Your task to perform on an android device: turn on the 24-hour format for clock Image 0: 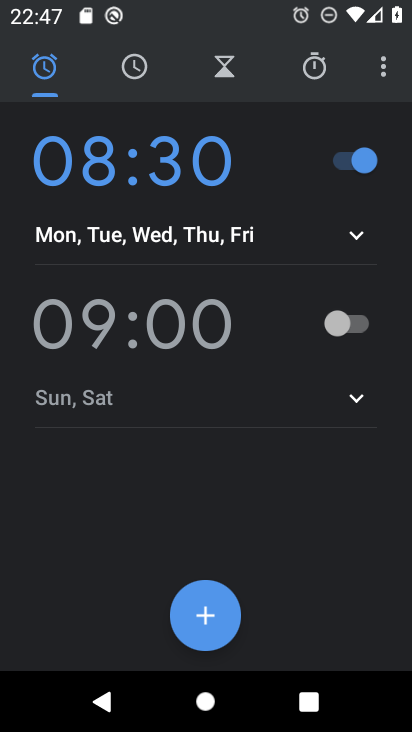
Step 0: press home button
Your task to perform on an android device: turn on the 24-hour format for clock Image 1: 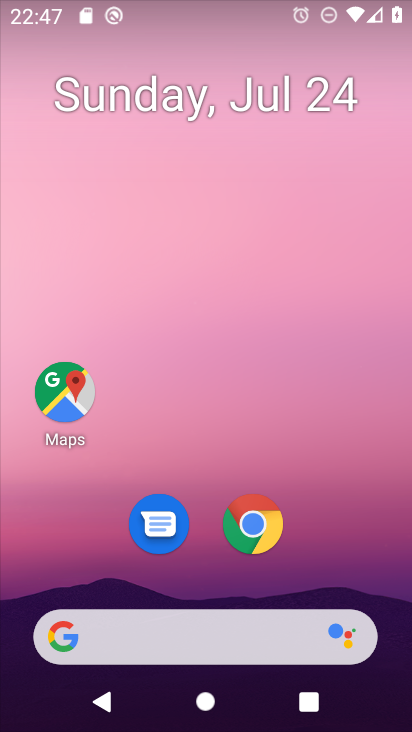
Step 1: drag from (157, 628) to (275, 156)
Your task to perform on an android device: turn on the 24-hour format for clock Image 2: 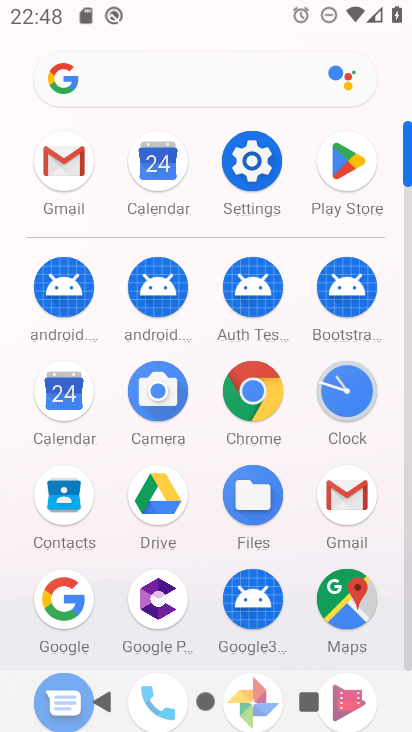
Step 2: click (343, 400)
Your task to perform on an android device: turn on the 24-hour format for clock Image 3: 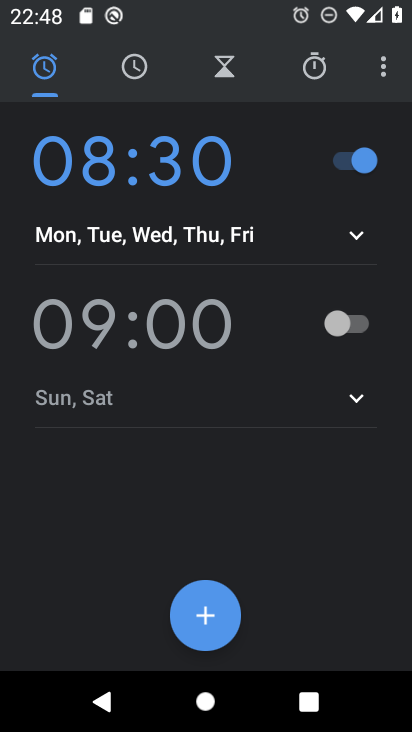
Step 3: click (386, 75)
Your task to perform on an android device: turn on the 24-hour format for clock Image 4: 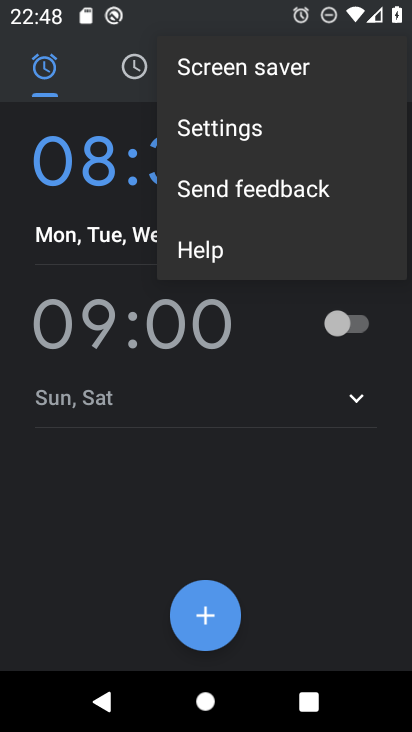
Step 4: click (240, 127)
Your task to perform on an android device: turn on the 24-hour format for clock Image 5: 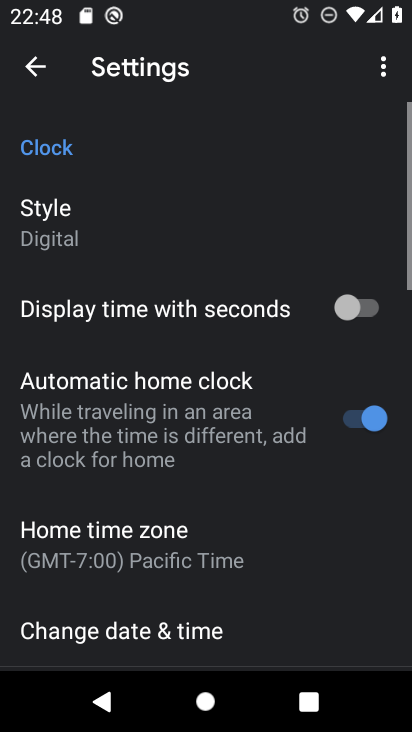
Step 5: drag from (249, 556) to (331, 100)
Your task to perform on an android device: turn on the 24-hour format for clock Image 6: 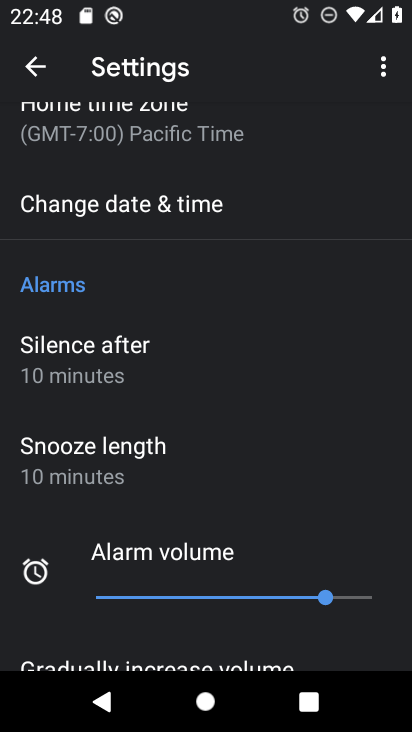
Step 6: click (173, 219)
Your task to perform on an android device: turn on the 24-hour format for clock Image 7: 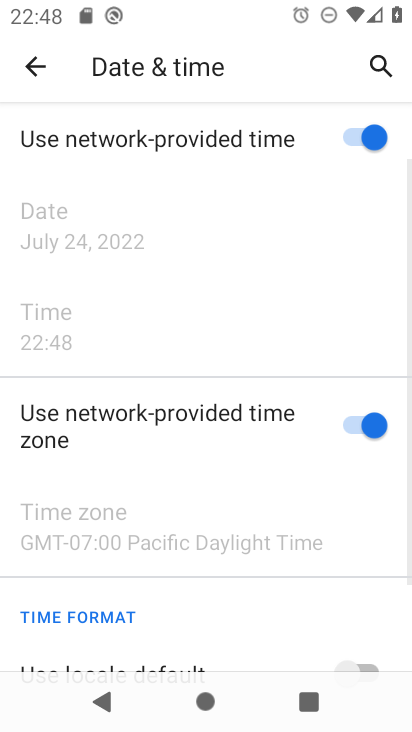
Step 7: task complete